Your task to perform on an android device: turn on the 12-hour format for clock Image 0: 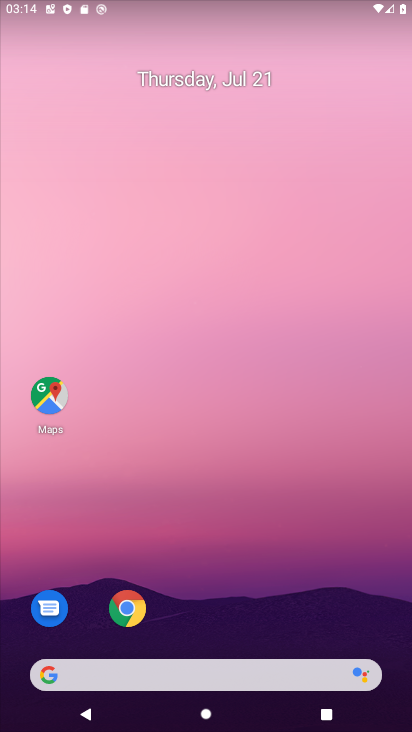
Step 0: drag from (203, 655) to (329, 163)
Your task to perform on an android device: turn on the 12-hour format for clock Image 1: 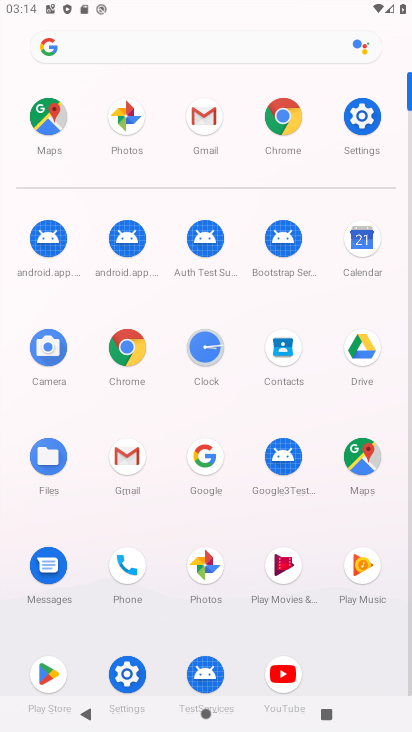
Step 1: click (138, 345)
Your task to perform on an android device: turn on the 12-hour format for clock Image 2: 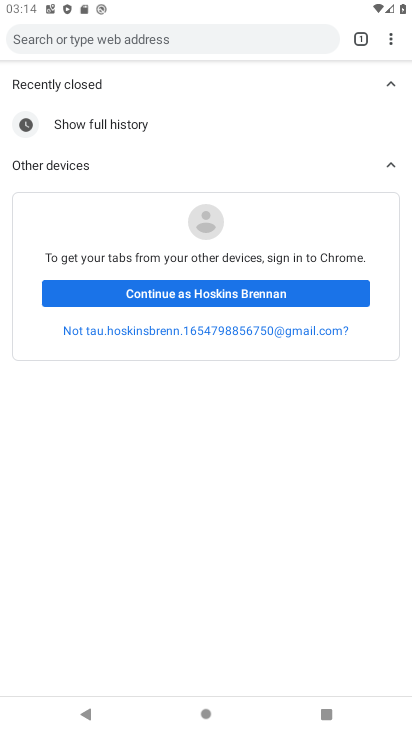
Step 2: press home button
Your task to perform on an android device: turn on the 12-hour format for clock Image 3: 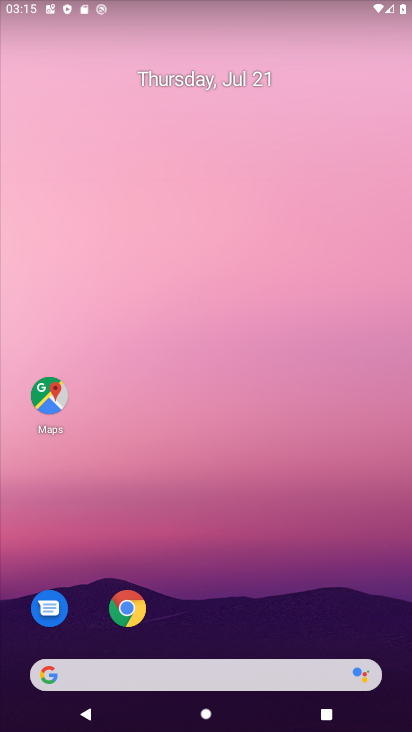
Step 3: drag from (336, 554) to (402, 415)
Your task to perform on an android device: turn on the 12-hour format for clock Image 4: 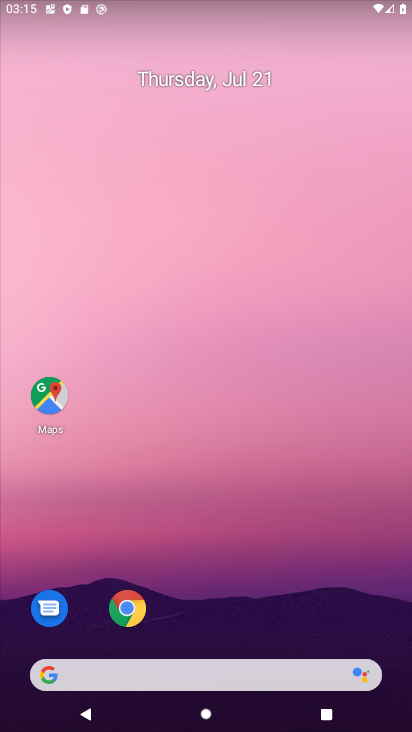
Step 4: drag from (282, 646) to (229, 123)
Your task to perform on an android device: turn on the 12-hour format for clock Image 5: 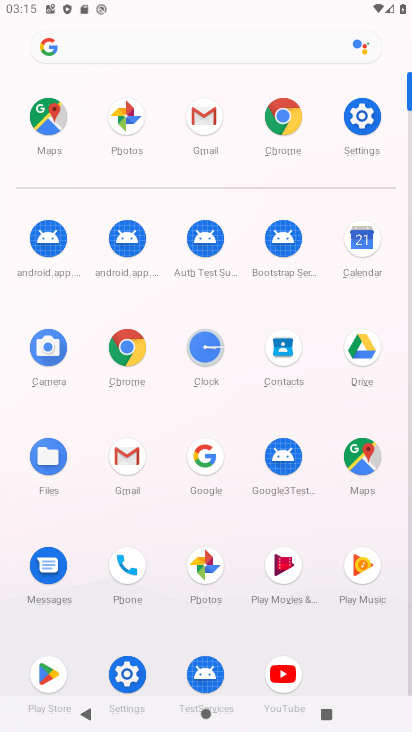
Step 5: click (200, 346)
Your task to perform on an android device: turn on the 12-hour format for clock Image 6: 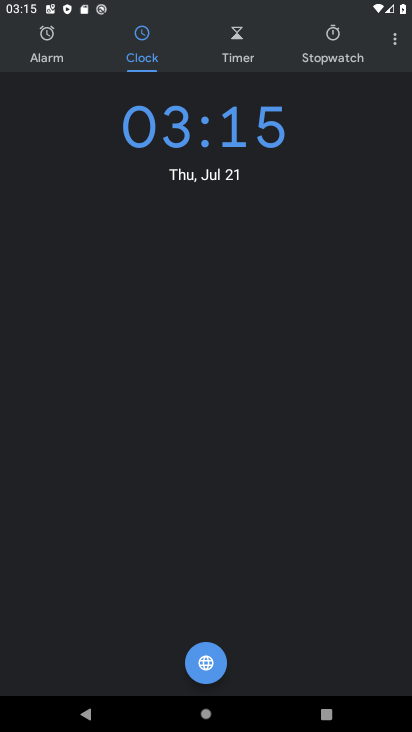
Step 6: click (396, 39)
Your task to perform on an android device: turn on the 12-hour format for clock Image 7: 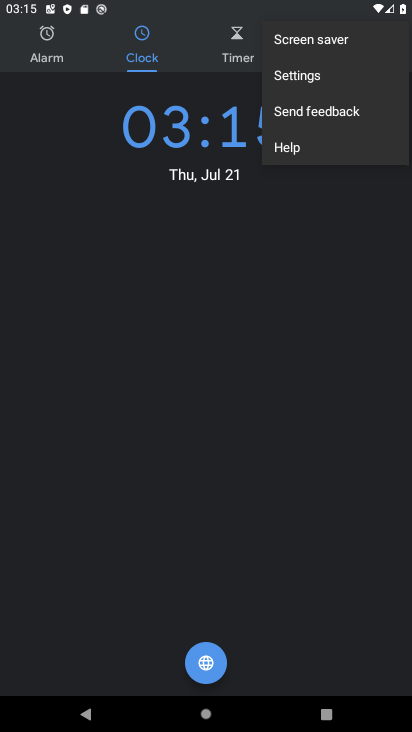
Step 7: click (329, 81)
Your task to perform on an android device: turn on the 12-hour format for clock Image 8: 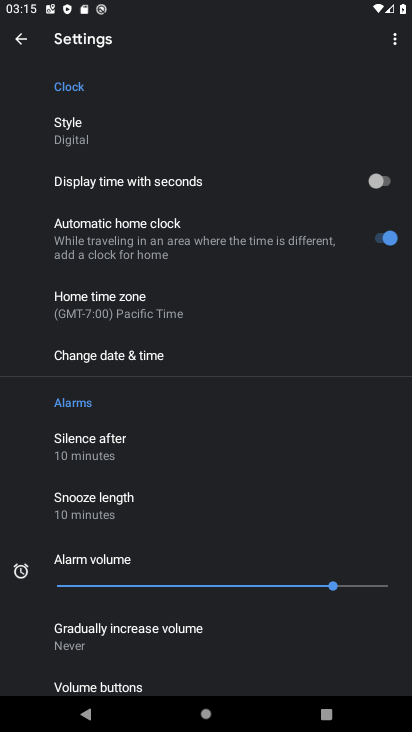
Step 8: click (147, 359)
Your task to perform on an android device: turn on the 12-hour format for clock Image 9: 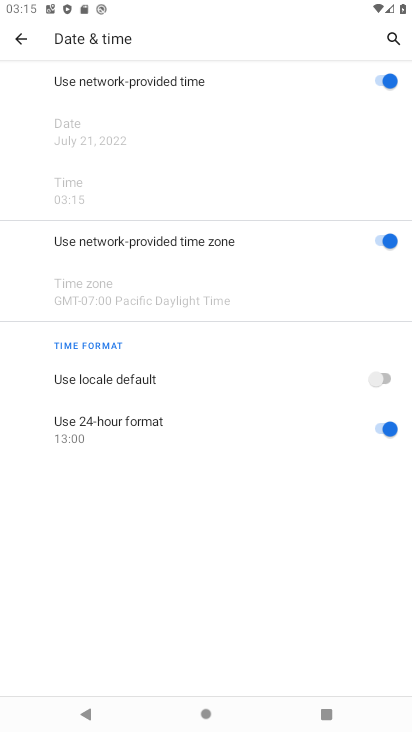
Step 9: click (380, 423)
Your task to perform on an android device: turn on the 12-hour format for clock Image 10: 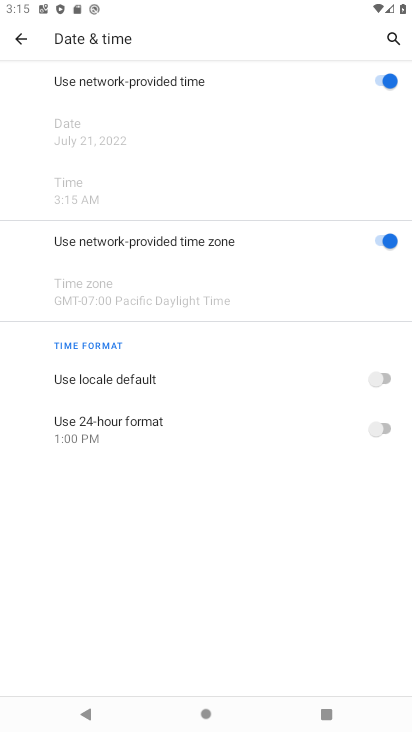
Step 10: task complete